Your task to perform on an android device: Search for logitech g910 on target.com, select the first entry, and add it to the cart. Image 0: 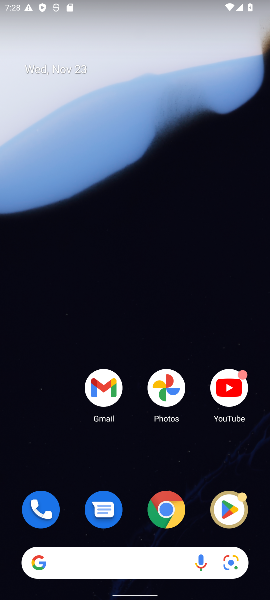
Step 0: click (160, 520)
Your task to perform on an android device: Search for logitech g910 on target.com, select the first entry, and add it to the cart. Image 1: 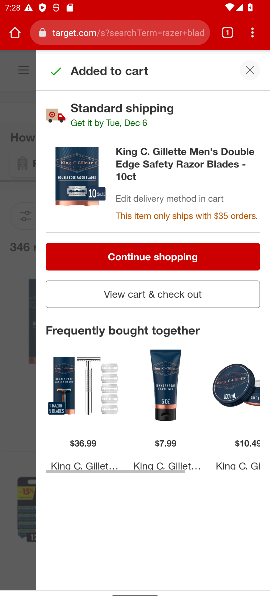
Step 1: click (250, 65)
Your task to perform on an android device: Search for logitech g910 on target.com, select the first entry, and add it to the cart. Image 2: 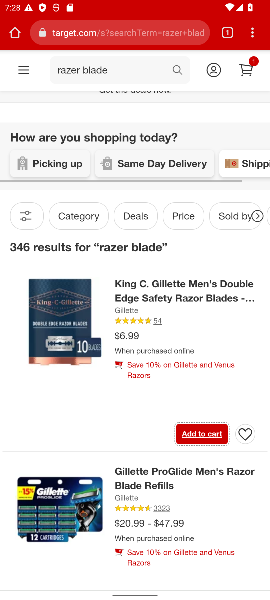
Step 2: click (176, 70)
Your task to perform on an android device: Search for logitech g910 on target.com, select the first entry, and add it to the cart. Image 3: 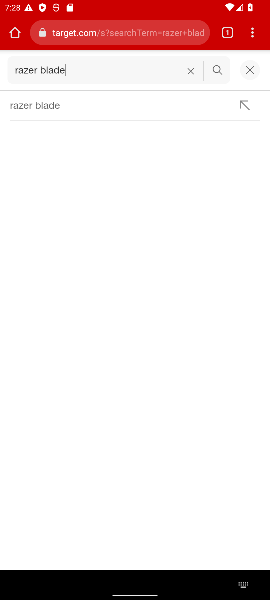
Step 3: click (190, 72)
Your task to perform on an android device: Search for logitech g910 on target.com, select the first entry, and add it to the cart. Image 4: 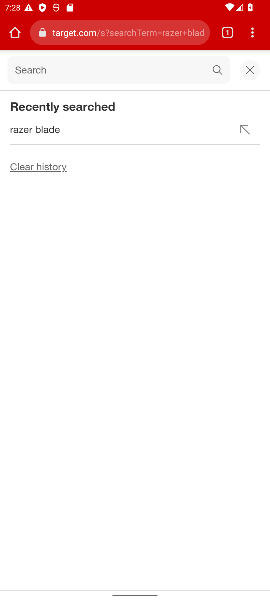
Step 4: type "logitech g910"
Your task to perform on an android device: Search for logitech g910 on target.com, select the first entry, and add it to the cart. Image 5: 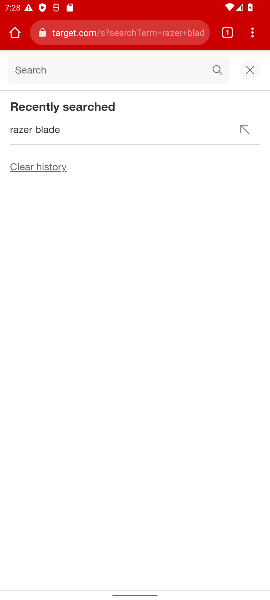
Step 5: click (114, 64)
Your task to perform on an android device: Search for logitech g910 on target.com, select the first entry, and add it to the cart. Image 6: 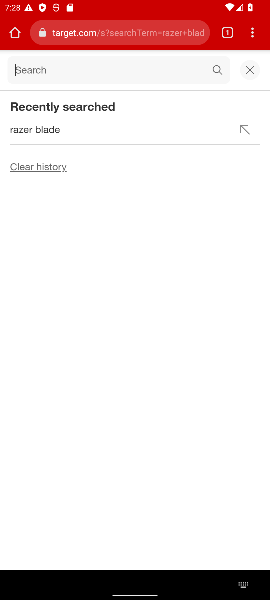
Step 6: type "logitech g910"
Your task to perform on an android device: Search for logitech g910 on target.com, select the first entry, and add it to the cart. Image 7: 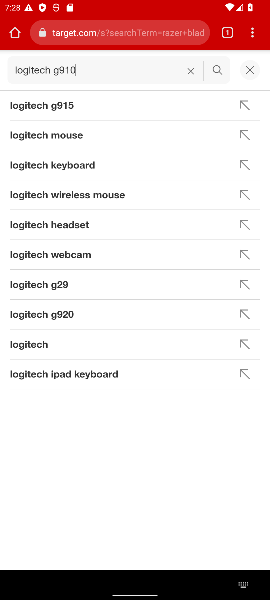
Step 7: press enter
Your task to perform on an android device: Search for logitech g910 on target.com, select the first entry, and add it to the cart. Image 8: 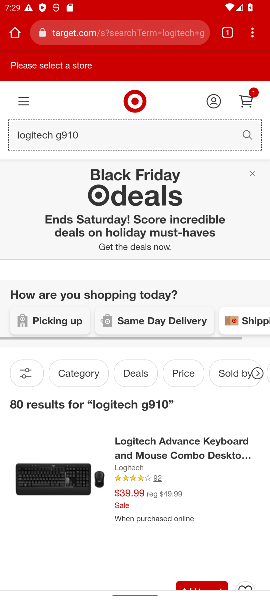
Step 8: drag from (197, 491) to (172, 354)
Your task to perform on an android device: Search for logitech g910 on target.com, select the first entry, and add it to the cart. Image 9: 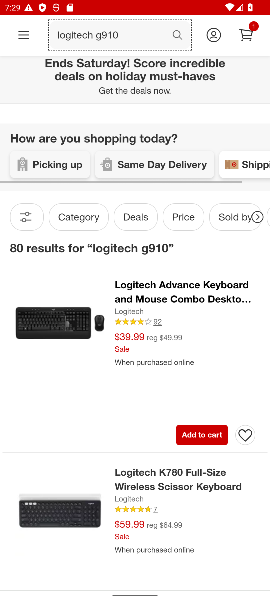
Step 9: click (209, 431)
Your task to perform on an android device: Search for logitech g910 on target.com, select the first entry, and add it to the cart. Image 10: 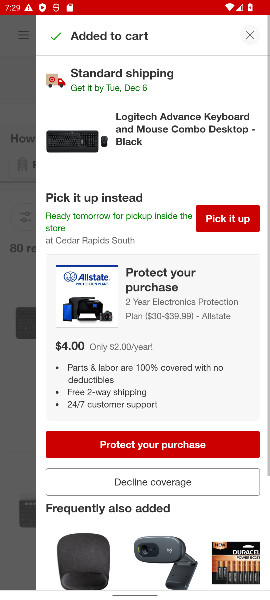
Step 10: task complete